Your task to perform on an android device: star an email in the gmail app Image 0: 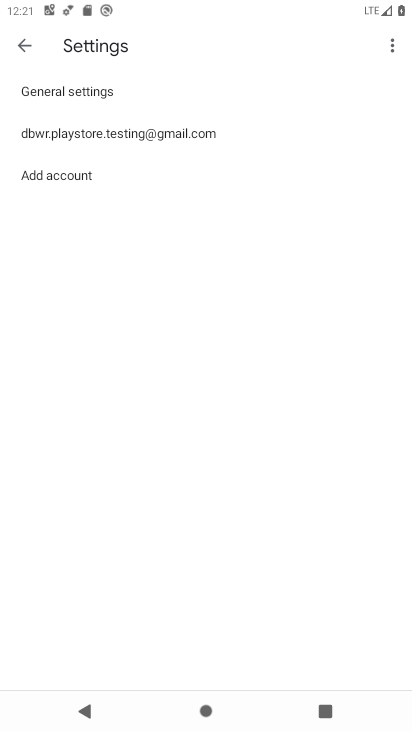
Step 0: press home button
Your task to perform on an android device: star an email in the gmail app Image 1: 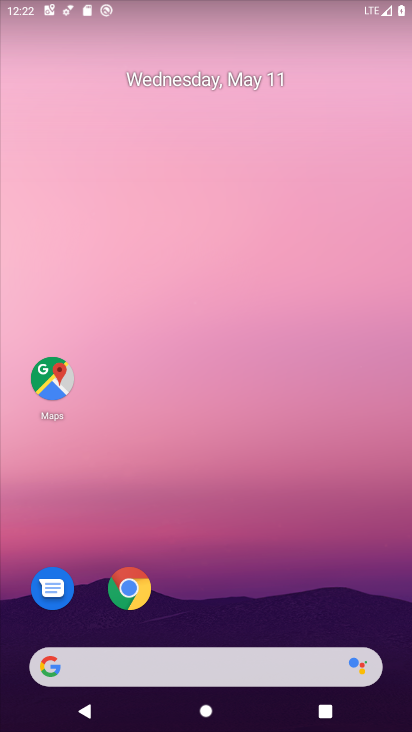
Step 1: click (225, 252)
Your task to perform on an android device: star an email in the gmail app Image 2: 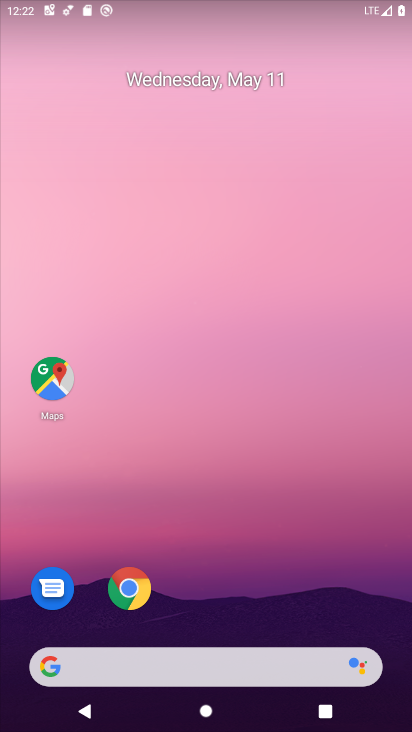
Step 2: drag from (154, 645) to (163, 269)
Your task to perform on an android device: star an email in the gmail app Image 3: 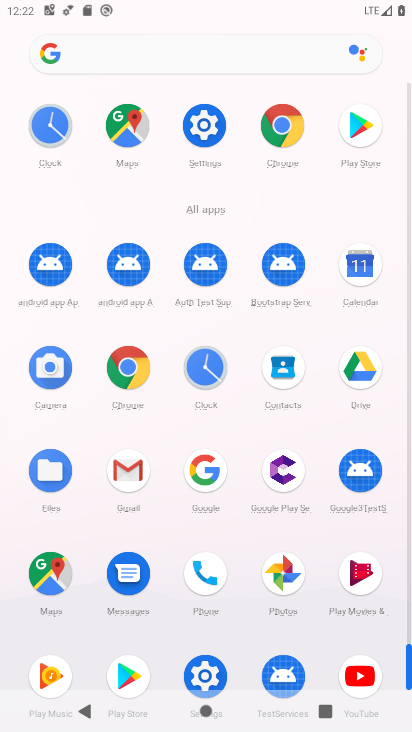
Step 3: click (123, 474)
Your task to perform on an android device: star an email in the gmail app Image 4: 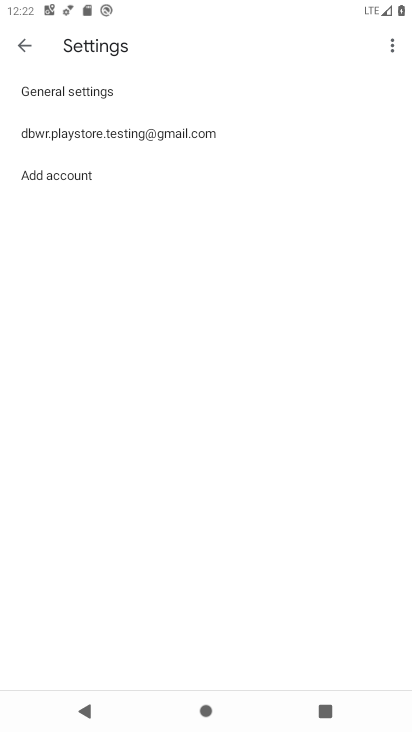
Step 4: click (17, 44)
Your task to perform on an android device: star an email in the gmail app Image 5: 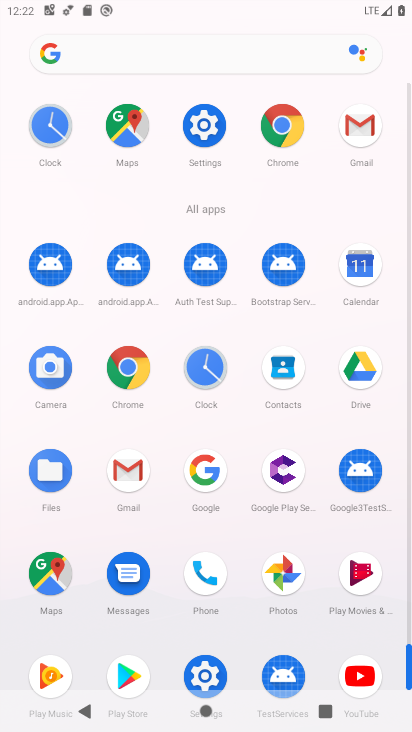
Step 5: click (129, 470)
Your task to perform on an android device: star an email in the gmail app Image 6: 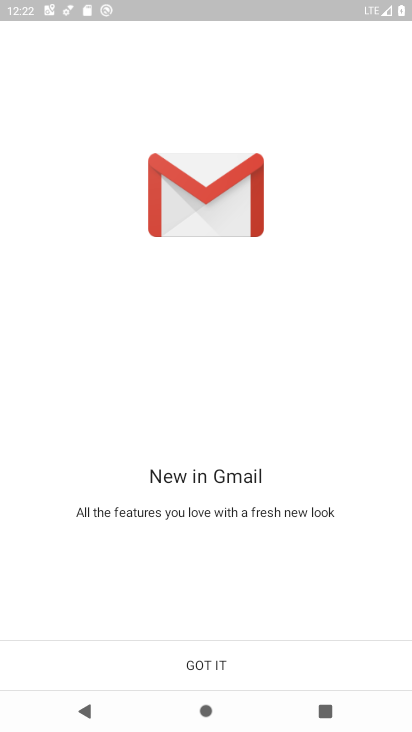
Step 6: click (194, 665)
Your task to perform on an android device: star an email in the gmail app Image 7: 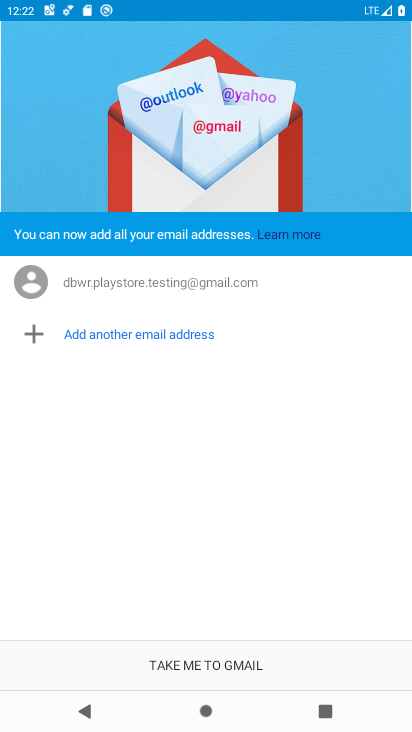
Step 7: click (187, 665)
Your task to perform on an android device: star an email in the gmail app Image 8: 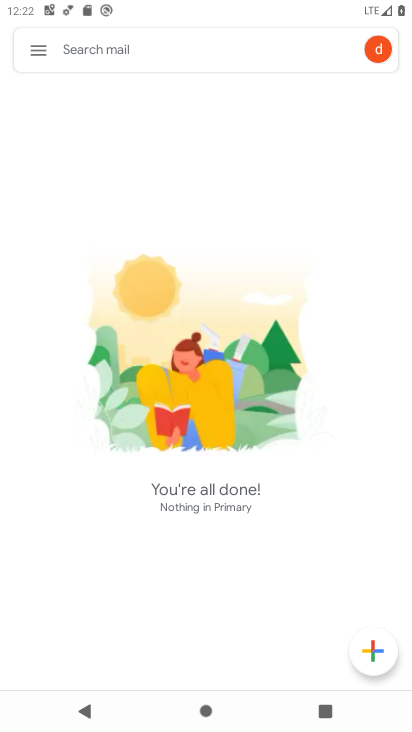
Step 8: click (42, 49)
Your task to perform on an android device: star an email in the gmail app Image 9: 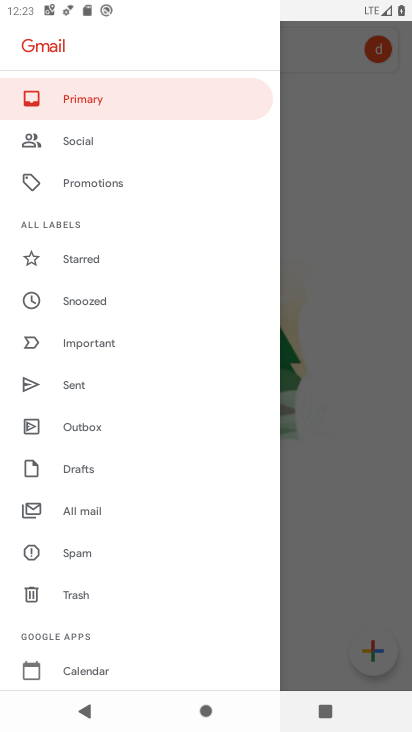
Step 9: click (74, 270)
Your task to perform on an android device: star an email in the gmail app Image 10: 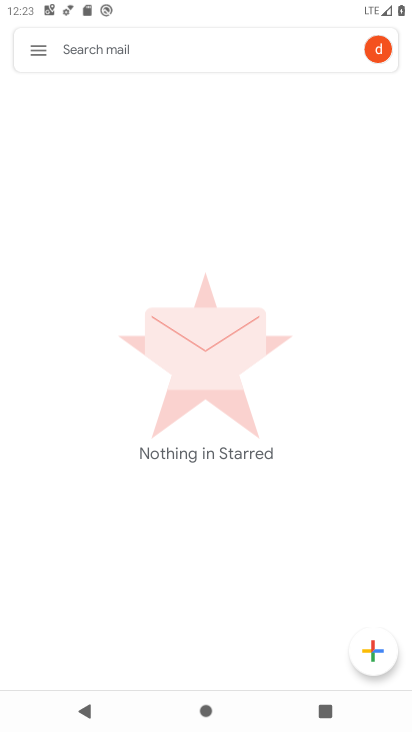
Step 10: task complete